Your task to perform on an android device: see creations saved in the google photos Image 0: 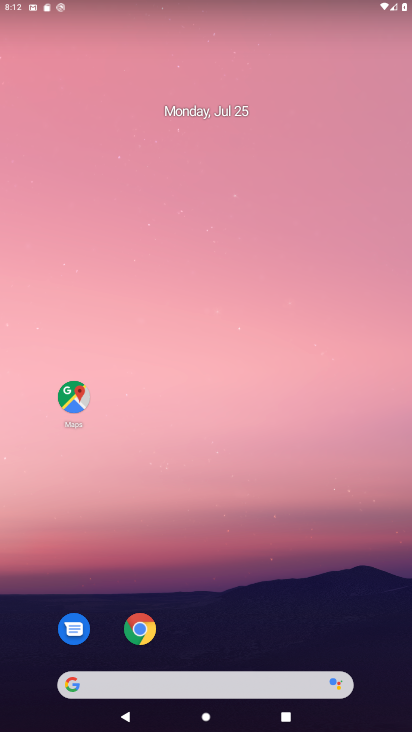
Step 0: drag from (169, 686) to (251, 20)
Your task to perform on an android device: see creations saved in the google photos Image 1: 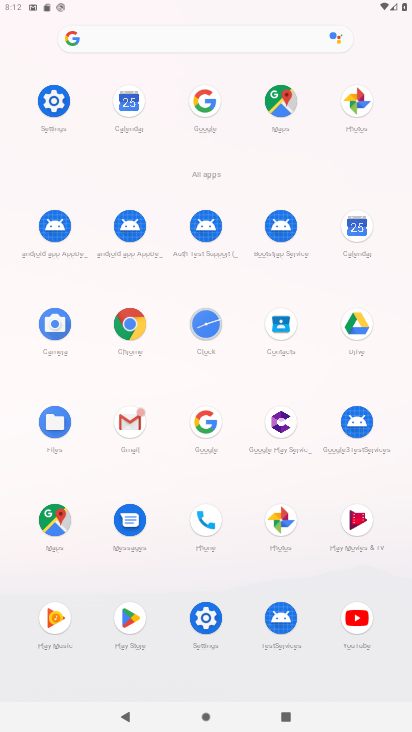
Step 1: click (357, 100)
Your task to perform on an android device: see creations saved in the google photos Image 2: 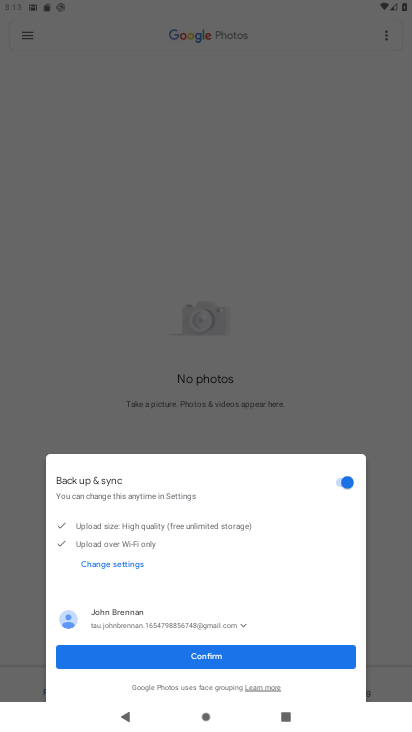
Step 2: click (206, 655)
Your task to perform on an android device: see creations saved in the google photos Image 3: 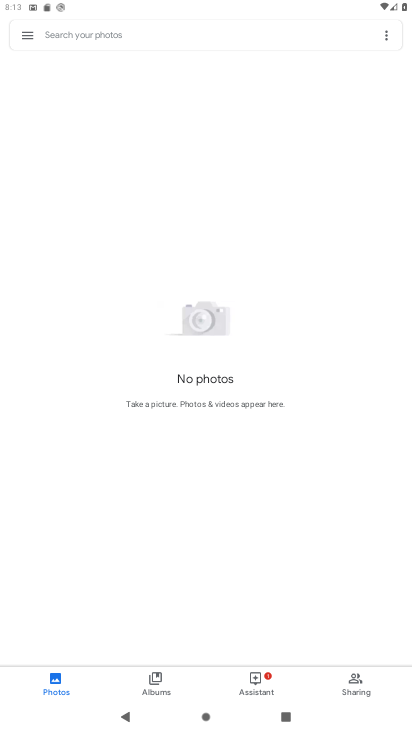
Step 3: click (239, 45)
Your task to perform on an android device: see creations saved in the google photos Image 4: 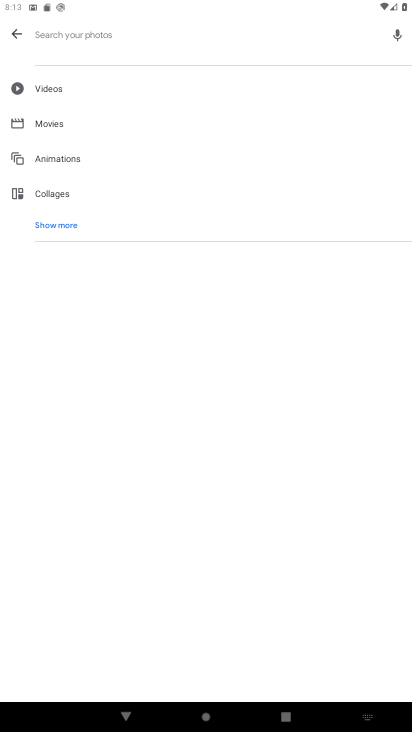
Step 4: click (60, 225)
Your task to perform on an android device: see creations saved in the google photos Image 5: 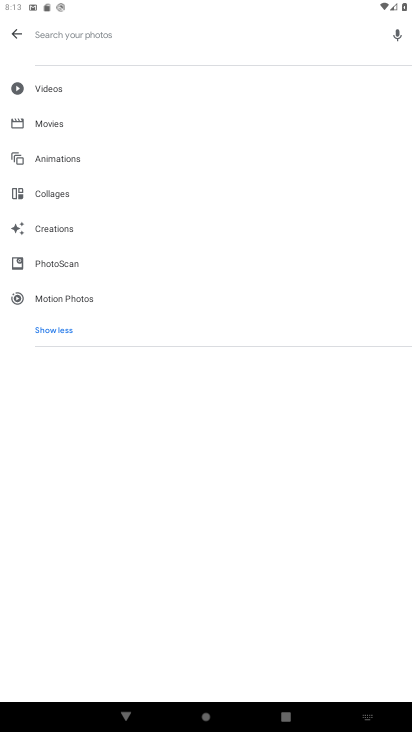
Step 5: click (57, 232)
Your task to perform on an android device: see creations saved in the google photos Image 6: 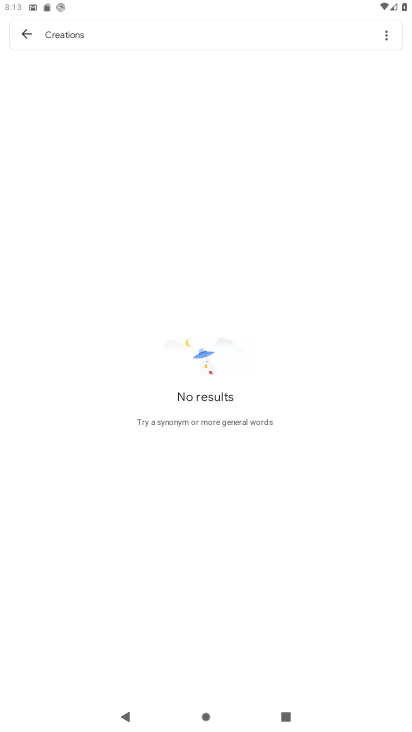
Step 6: task complete